Your task to perform on an android device: check battery use Image 0: 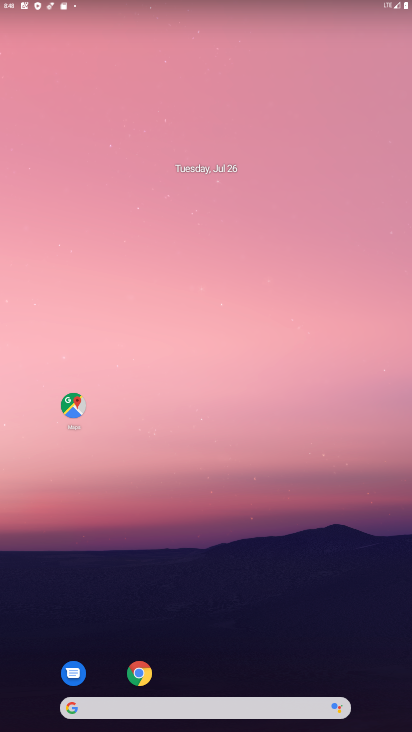
Step 0: drag from (290, 699) to (347, 3)
Your task to perform on an android device: check battery use Image 1: 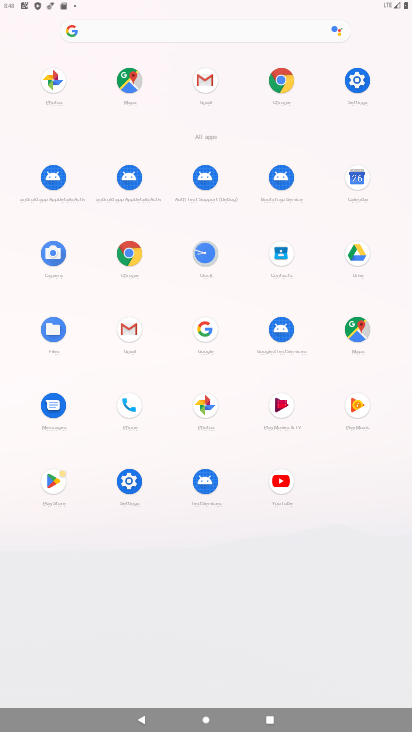
Step 1: click (353, 74)
Your task to perform on an android device: check battery use Image 2: 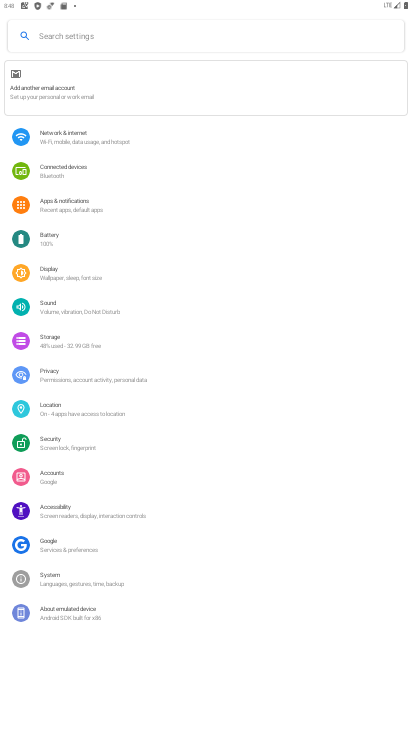
Step 2: click (63, 244)
Your task to perform on an android device: check battery use Image 3: 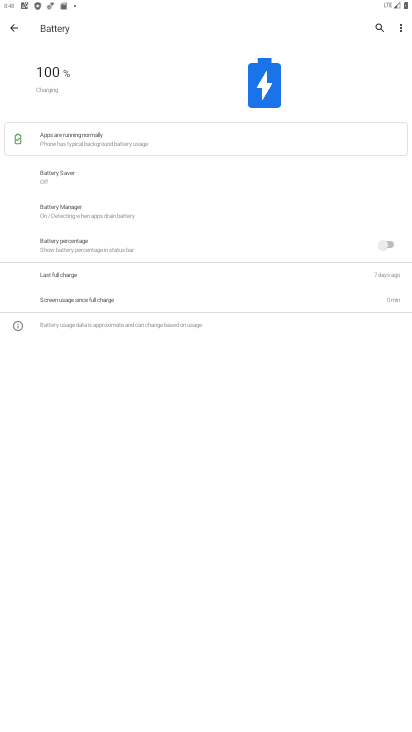
Step 3: task complete